Your task to perform on an android device: Open internet settings Image 0: 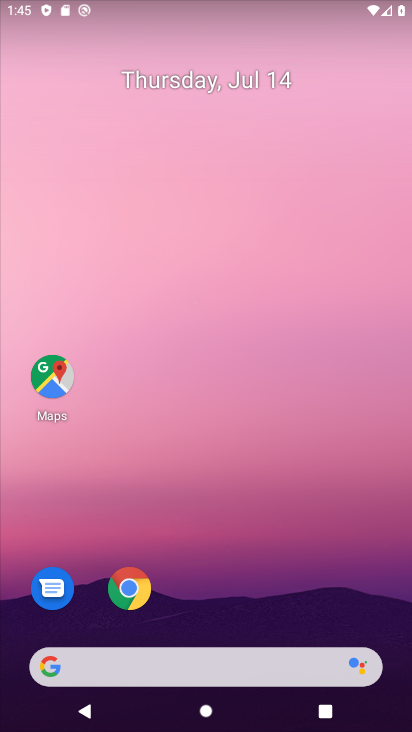
Step 0: drag from (108, 551) to (140, 180)
Your task to perform on an android device: Open internet settings Image 1: 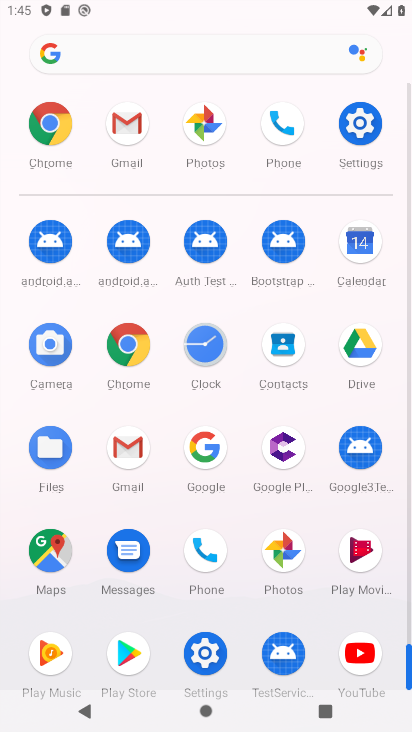
Step 1: click (361, 126)
Your task to perform on an android device: Open internet settings Image 2: 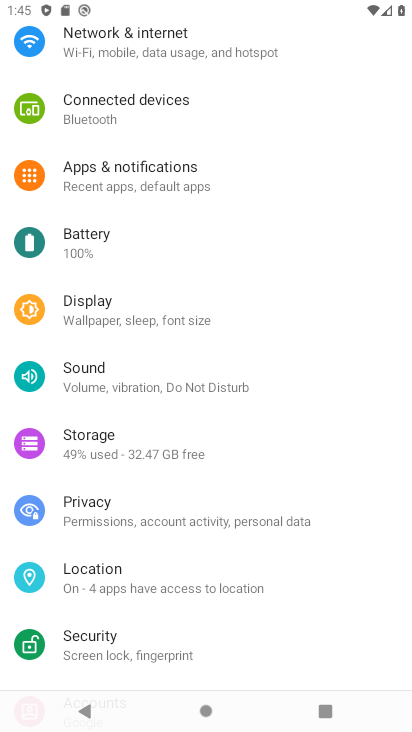
Step 2: click (284, 41)
Your task to perform on an android device: Open internet settings Image 3: 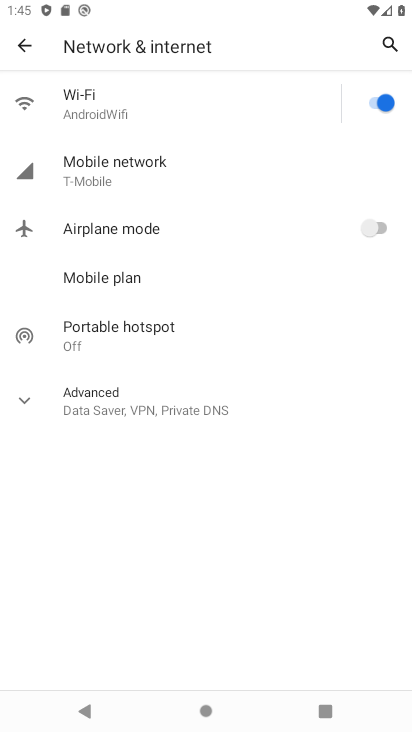
Step 3: task complete